Your task to perform on an android device: turn off notifications settings in the gmail app Image 0: 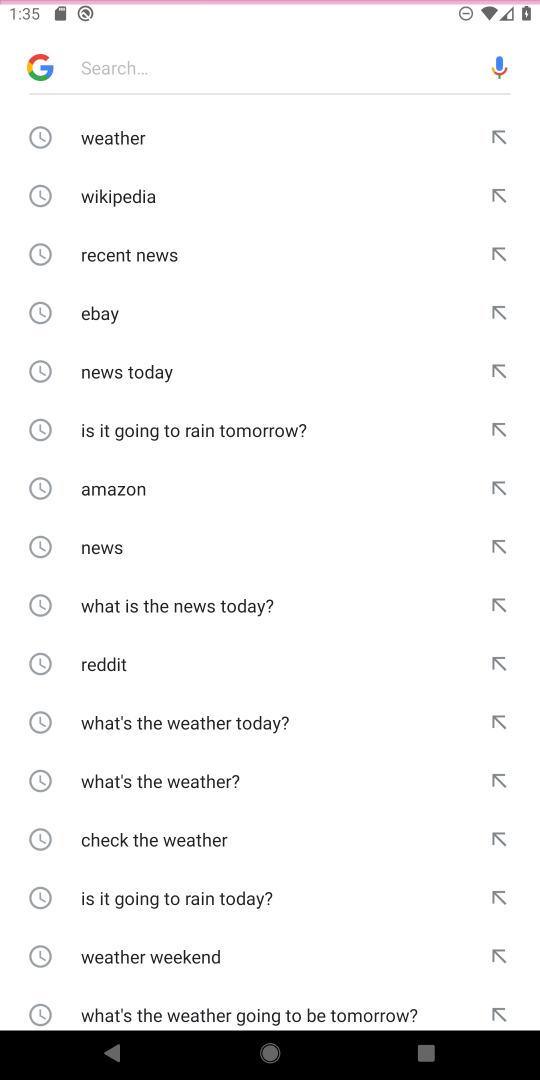
Step 0: press home button
Your task to perform on an android device: turn off notifications settings in the gmail app Image 1: 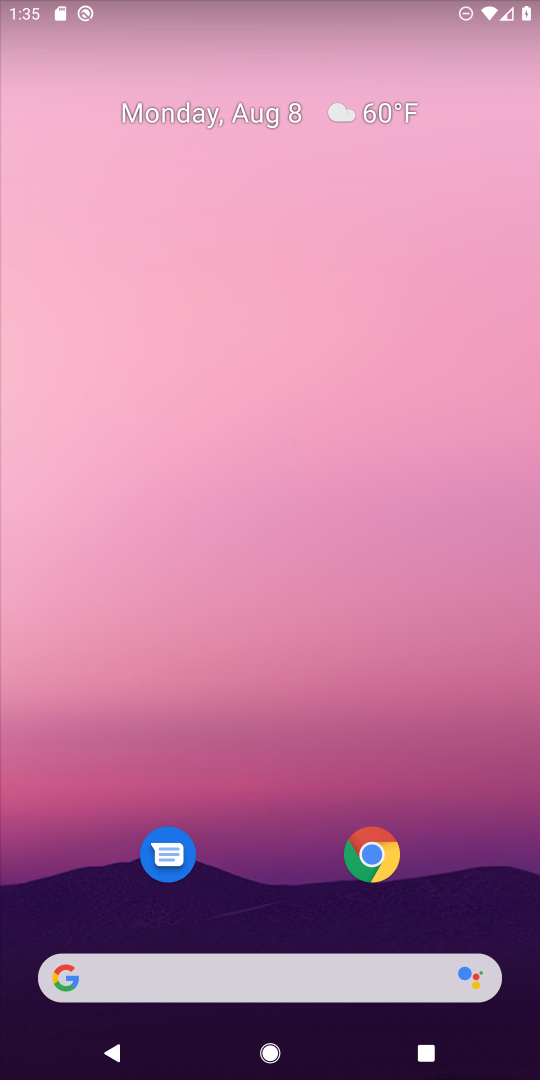
Step 1: drag from (300, 890) to (249, 149)
Your task to perform on an android device: turn off notifications settings in the gmail app Image 2: 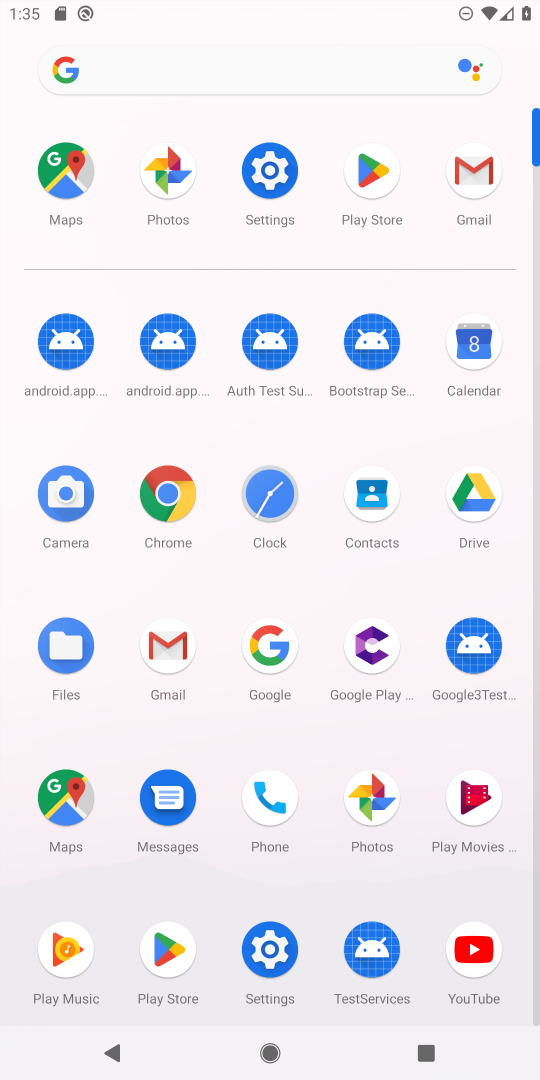
Step 2: click (171, 636)
Your task to perform on an android device: turn off notifications settings in the gmail app Image 3: 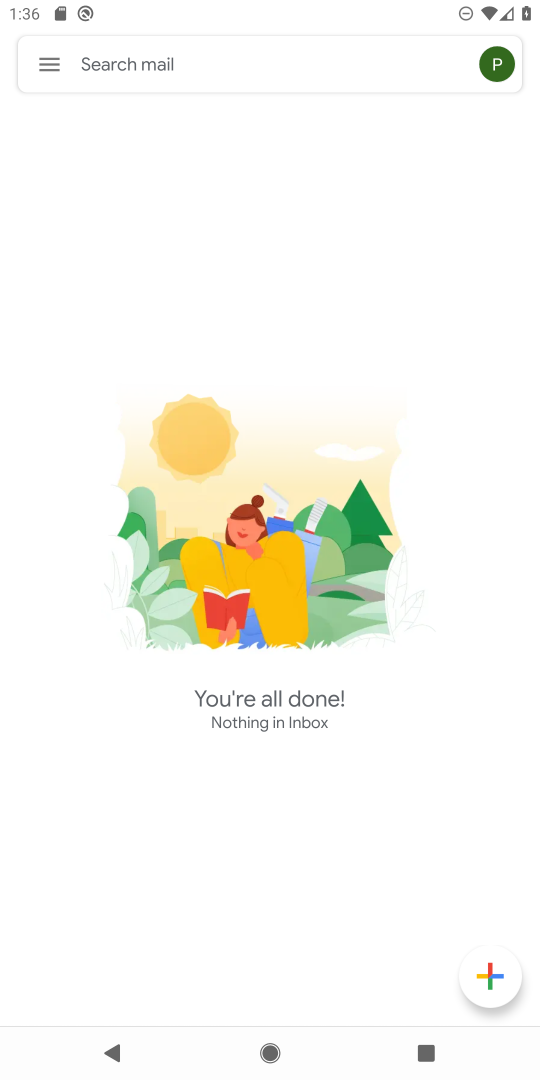
Step 3: click (498, 61)
Your task to perform on an android device: turn off notifications settings in the gmail app Image 4: 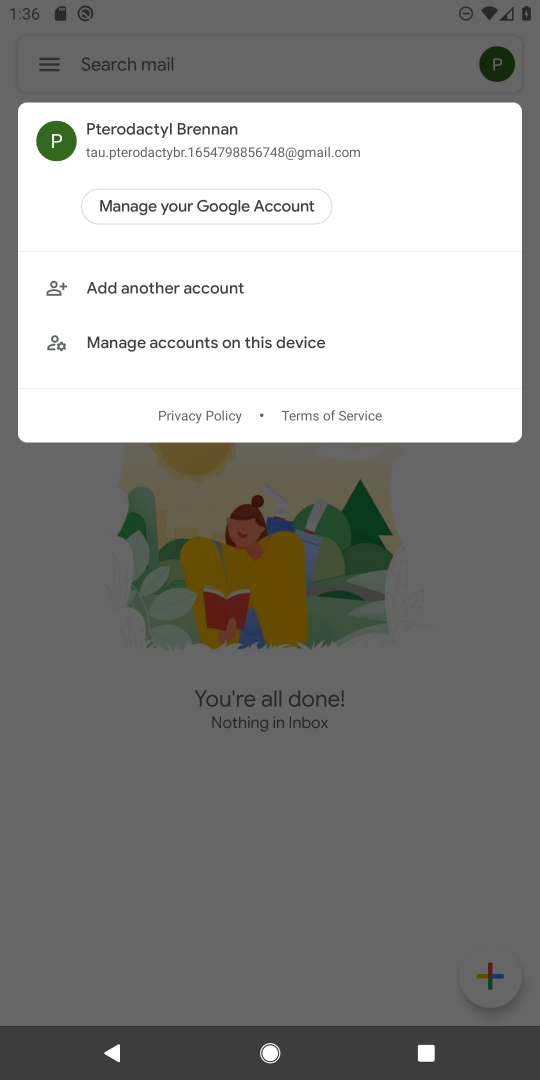
Step 4: click (51, 75)
Your task to perform on an android device: turn off notifications settings in the gmail app Image 5: 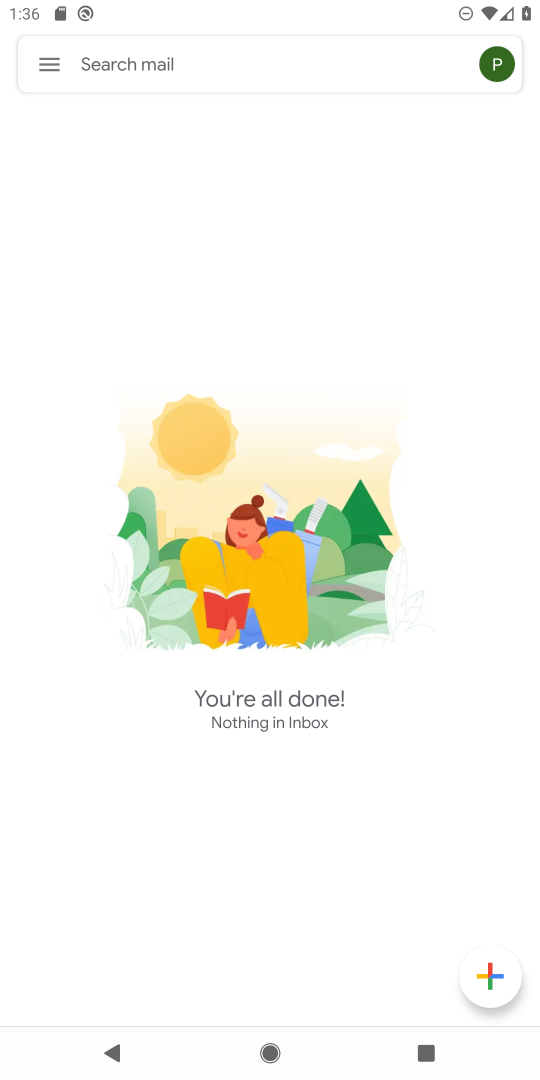
Step 5: click (54, 66)
Your task to perform on an android device: turn off notifications settings in the gmail app Image 6: 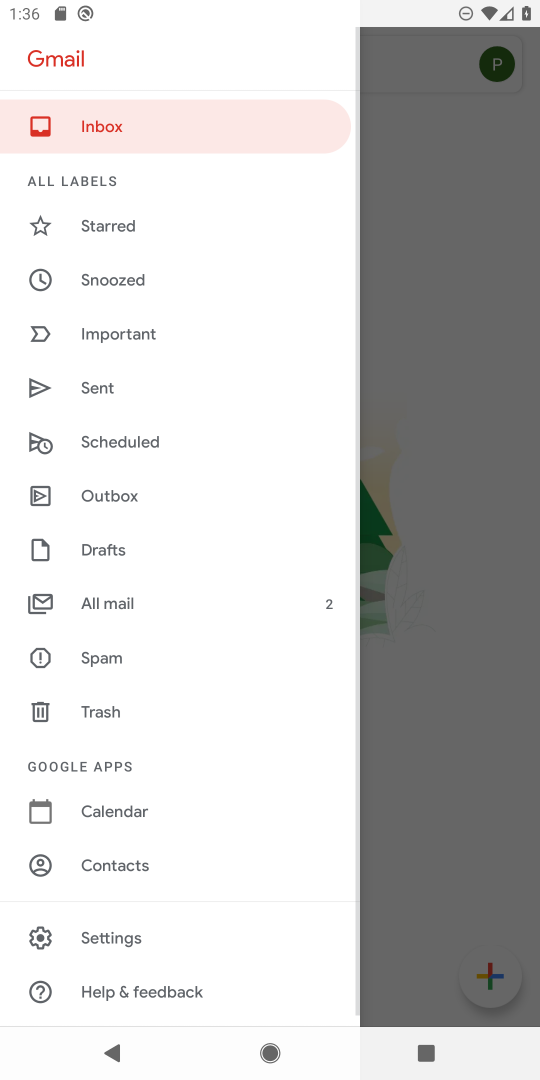
Step 6: click (118, 940)
Your task to perform on an android device: turn off notifications settings in the gmail app Image 7: 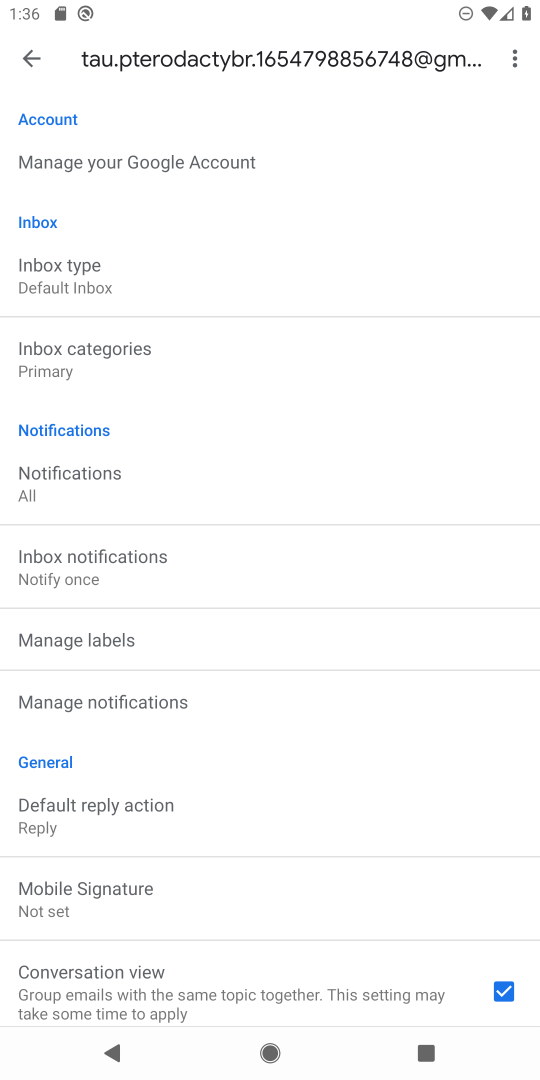
Step 7: click (78, 705)
Your task to perform on an android device: turn off notifications settings in the gmail app Image 8: 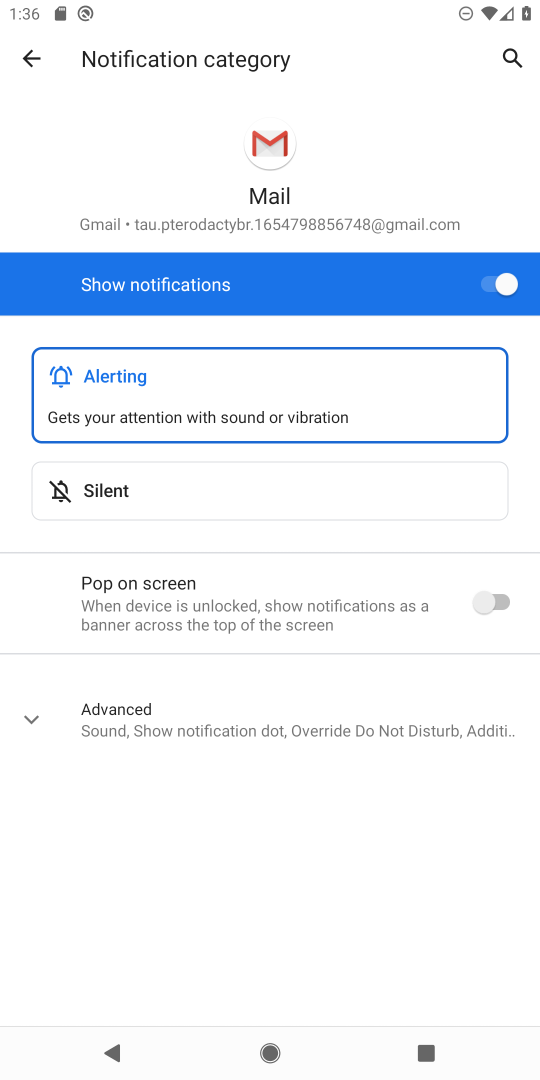
Step 8: click (497, 285)
Your task to perform on an android device: turn off notifications settings in the gmail app Image 9: 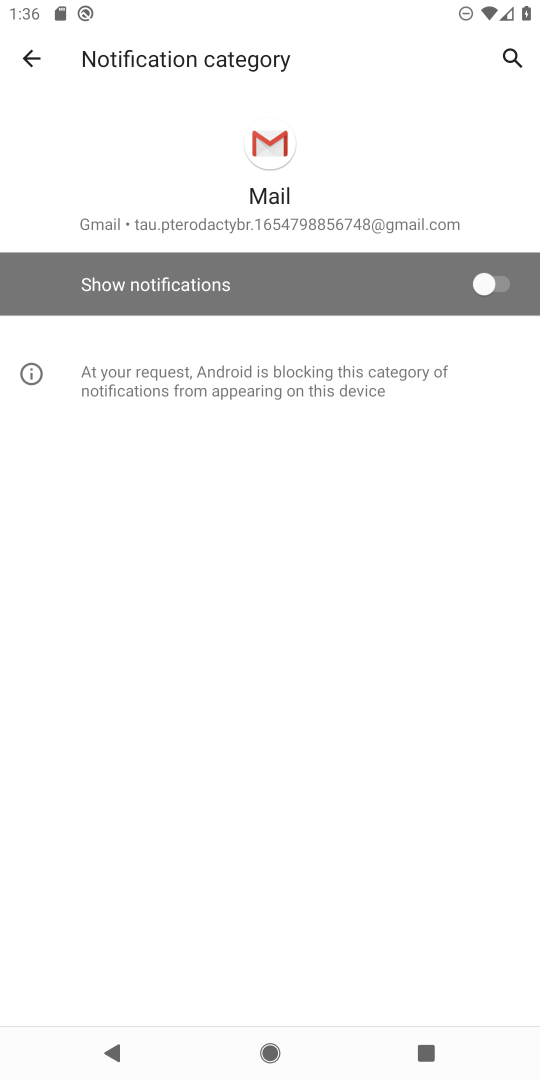
Step 9: task complete